Your task to perform on an android device: turn on wifi Image 0: 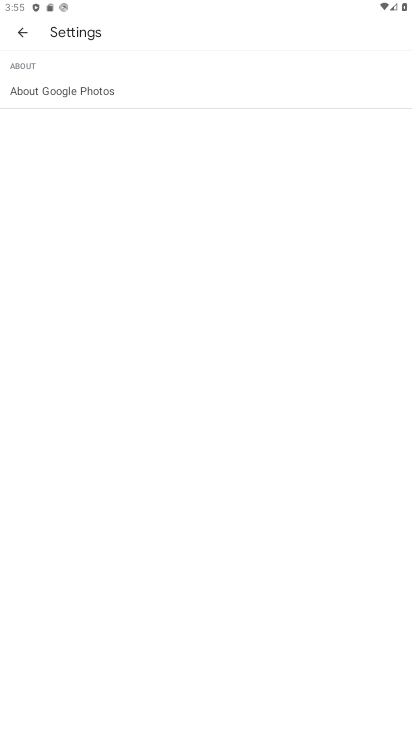
Step 0: press home button
Your task to perform on an android device: turn on wifi Image 1: 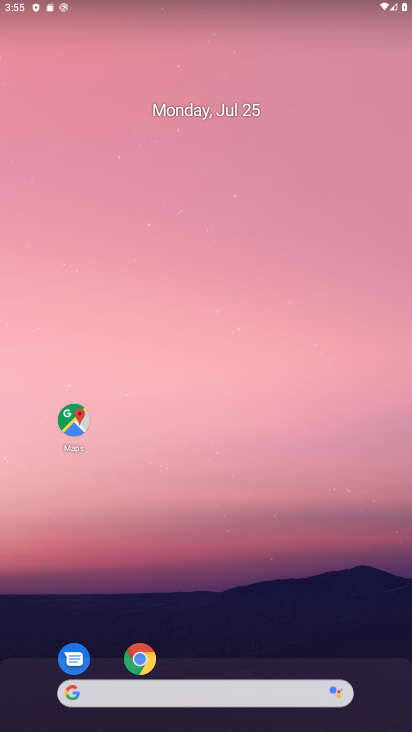
Step 1: drag from (212, 651) to (219, 136)
Your task to perform on an android device: turn on wifi Image 2: 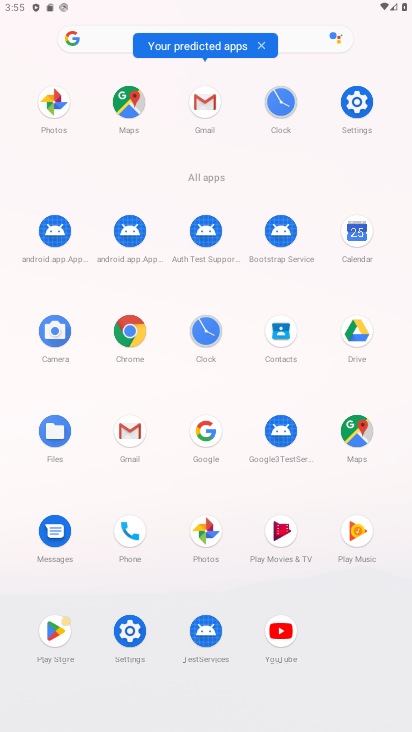
Step 2: click (336, 92)
Your task to perform on an android device: turn on wifi Image 3: 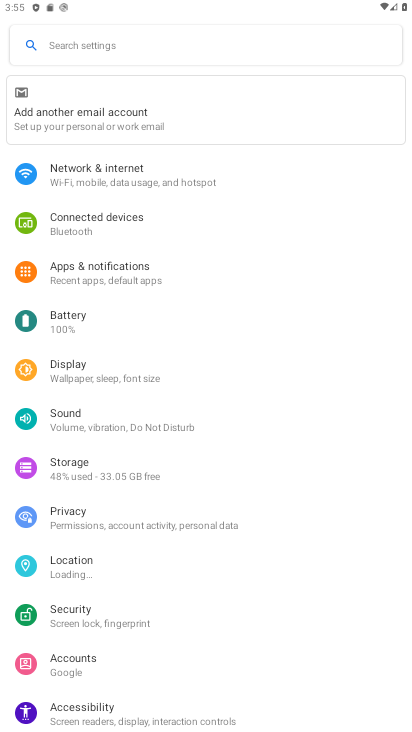
Step 3: click (157, 168)
Your task to perform on an android device: turn on wifi Image 4: 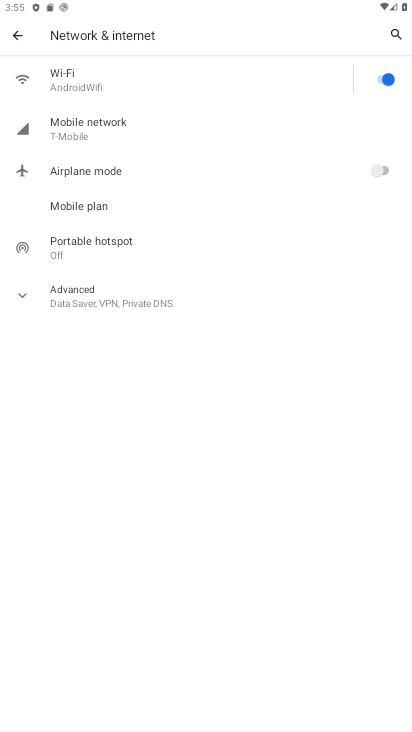
Step 4: task complete